Your task to perform on an android device: change notifications settings Image 0: 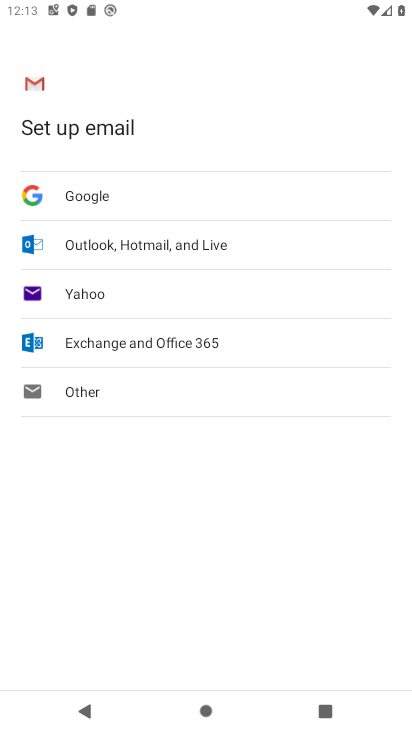
Step 0: press home button
Your task to perform on an android device: change notifications settings Image 1: 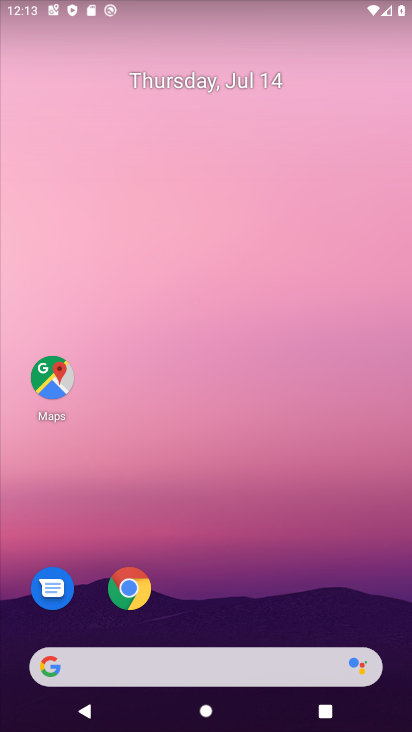
Step 1: drag from (261, 607) to (204, 227)
Your task to perform on an android device: change notifications settings Image 2: 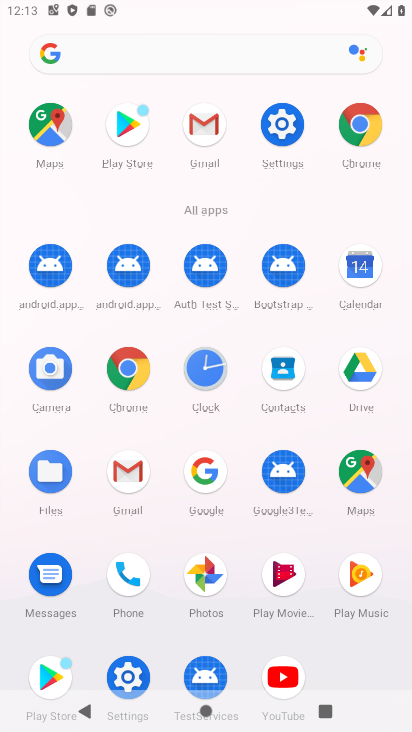
Step 2: click (264, 129)
Your task to perform on an android device: change notifications settings Image 3: 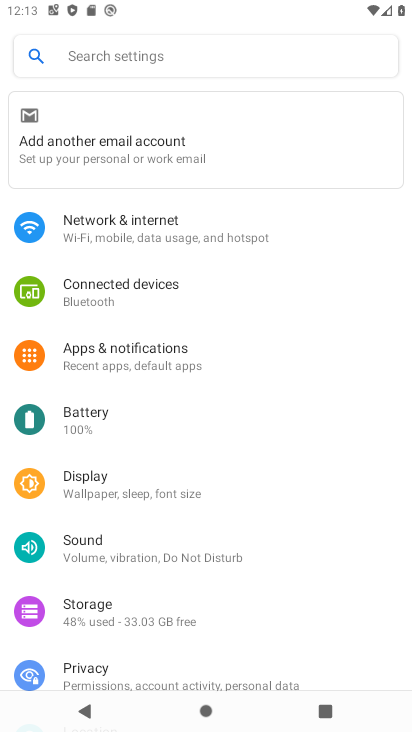
Step 3: drag from (118, 635) to (152, 430)
Your task to perform on an android device: change notifications settings Image 4: 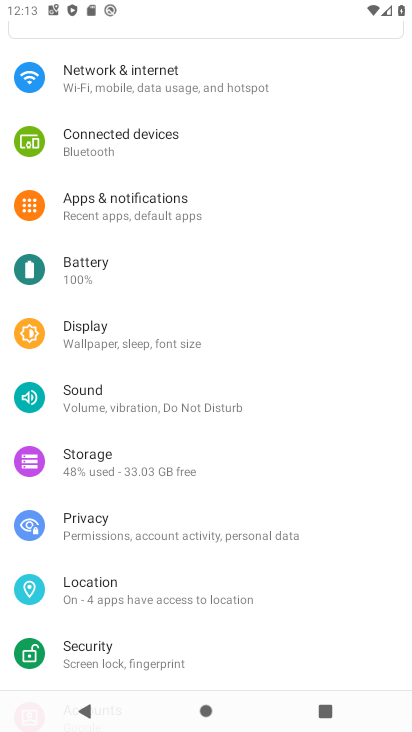
Step 4: click (203, 201)
Your task to perform on an android device: change notifications settings Image 5: 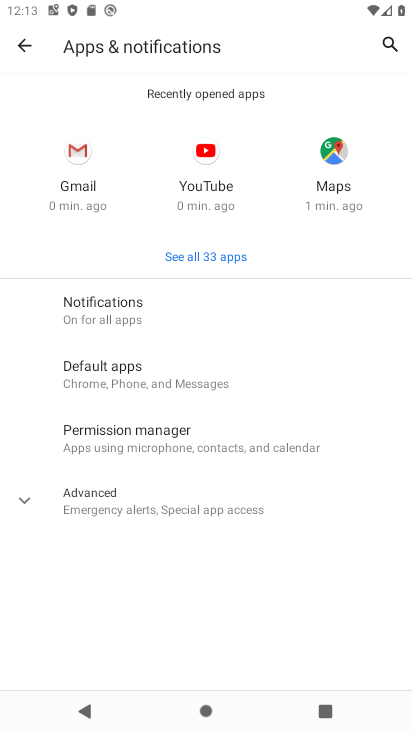
Step 5: click (146, 329)
Your task to perform on an android device: change notifications settings Image 6: 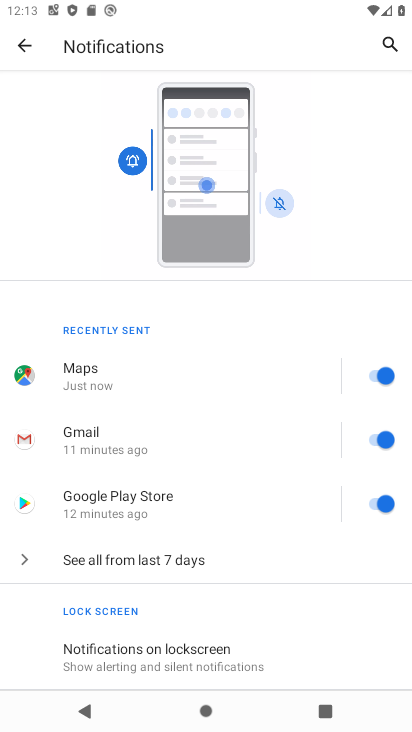
Step 6: drag from (153, 620) to (147, 136)
Your task to perform on an android device: change notifications settings Image 7: 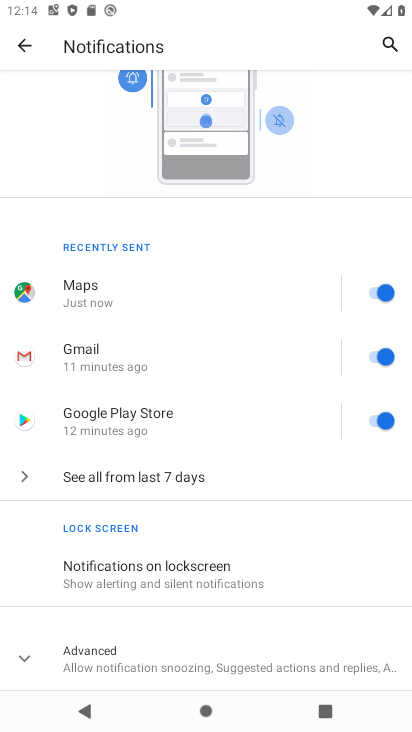
Step 7: click (148, 658)
Your task to perform on an android device: change notifications settings Image 8: 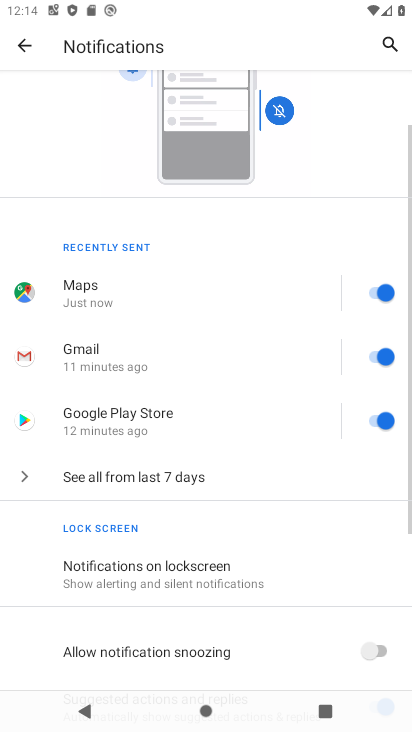
Step 8: drag from (170, 634) to (174, 330)
Your task to perform on an android device: change notifications settings Image 9: 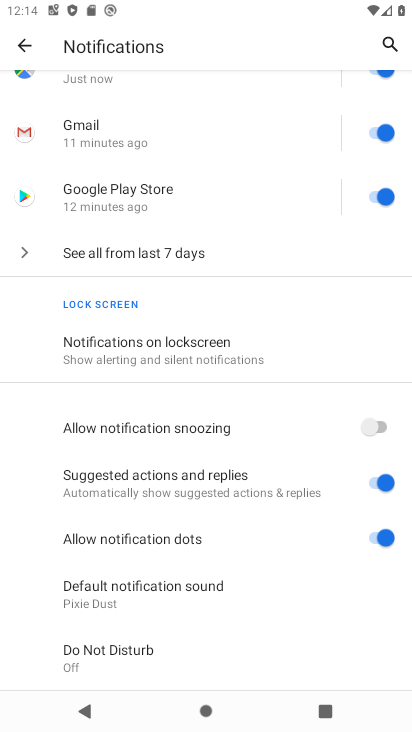
Step 9: click (348, 432)
Your task to perform on an android device: change notifications settings Image 10: 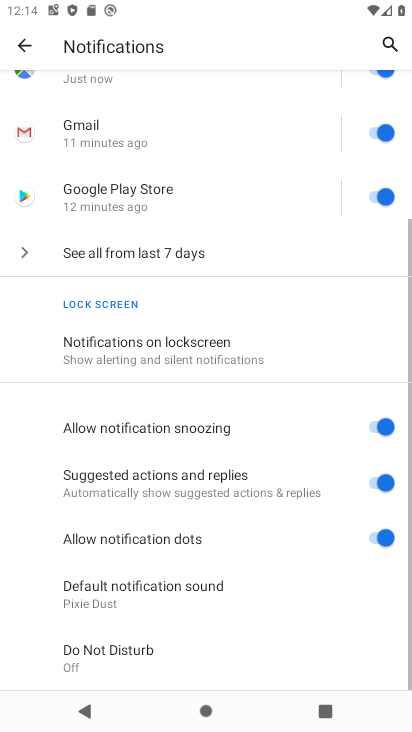
Step 10: task complete